Your task to perform on an android device: empty trash in the gmail app Image 0: 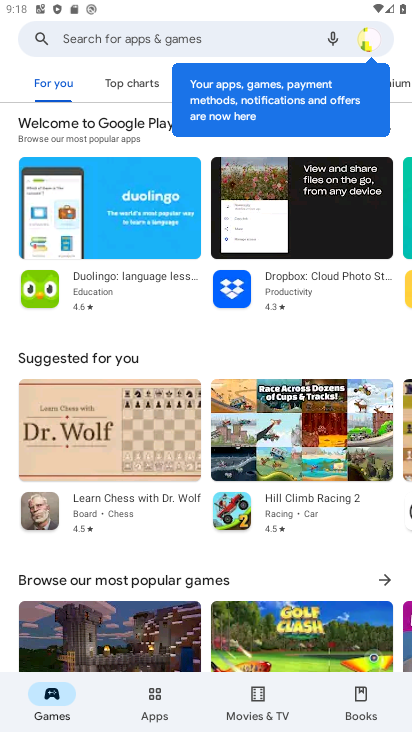
Step 0: press home button
Your task to perform on an android device: empty trash in the gmail app Image 1: 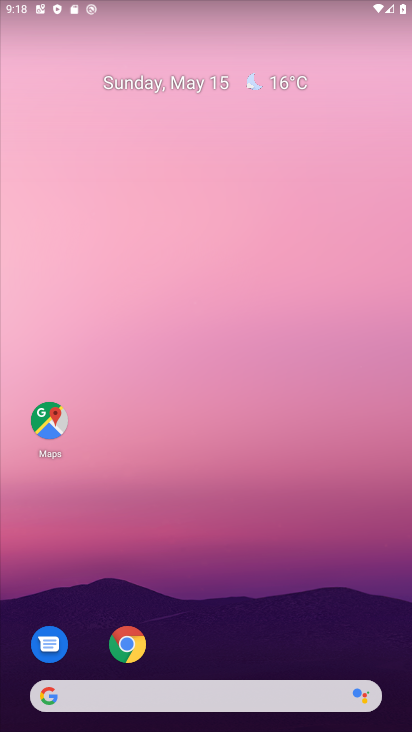
Step 1: drag from (151, 683) to (186, 358)
Your task to perform on an android device: empty trash in the gmail app Image 2: 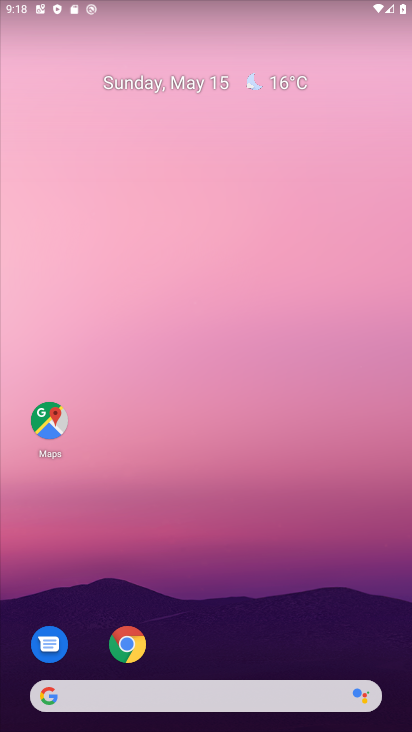
Step 2: drag from (238, 672) to (236, 382)
Your task to perform on an android device: empty trash in the gmail app Image 3: 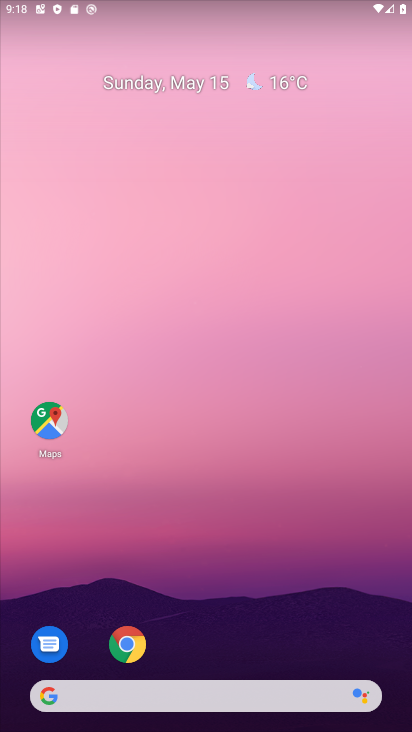
Step 3: drag from (163, 708) to (233, 243)
Your task to perform on an android device: empty trash in the gmail app Image 4: 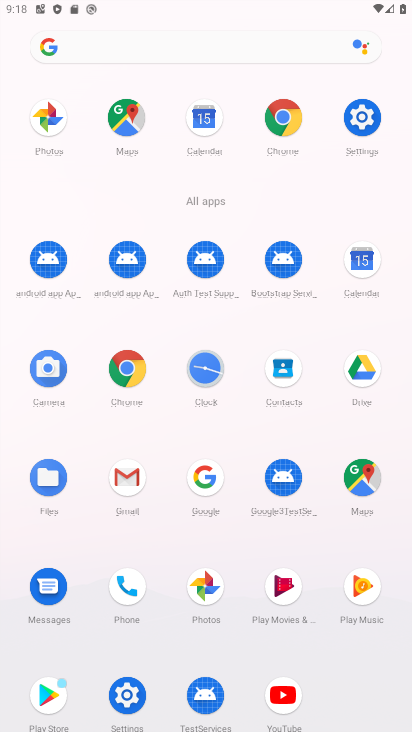
Step 4: click (118, 484)
Your task to perform on an android device: empty trash in the gmail app Image 5: 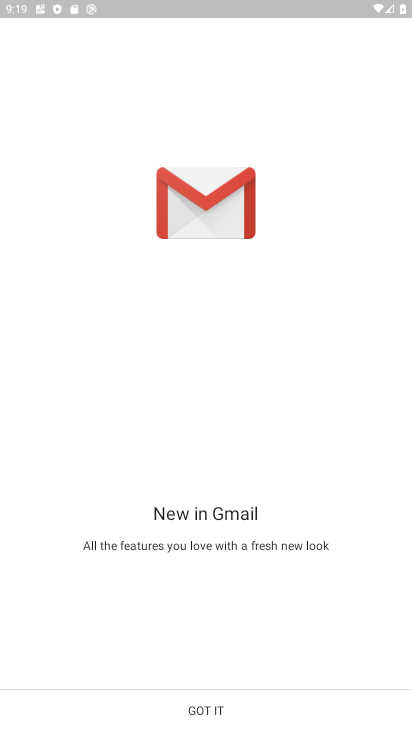
Step 5: click (192, 708)
Your task to perform on an android device: empty trash in the gmail app Image 6: 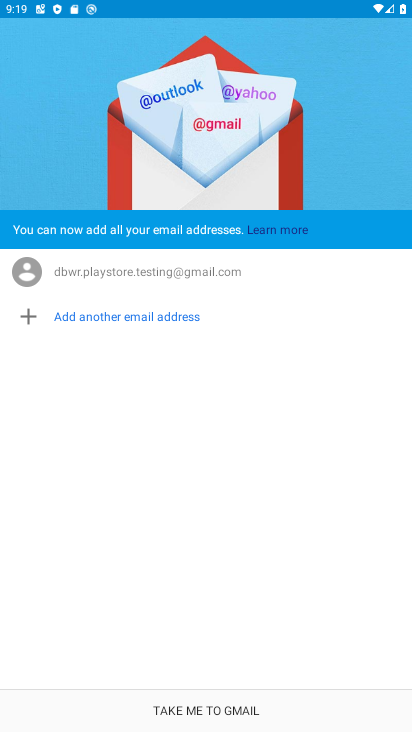
Step 6: click (192, 708)
Your task to perform on an android device: empty trash in the gmail app Image 7: 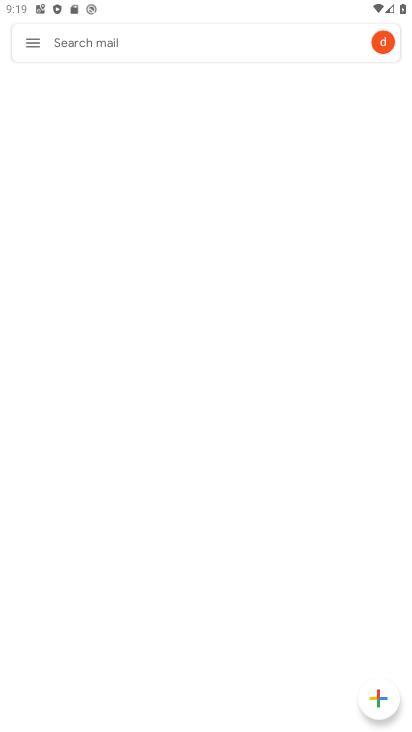
Step 7: click (30, 45)
Your task to perform on an android device: empty trash in the gmail app Image 8: 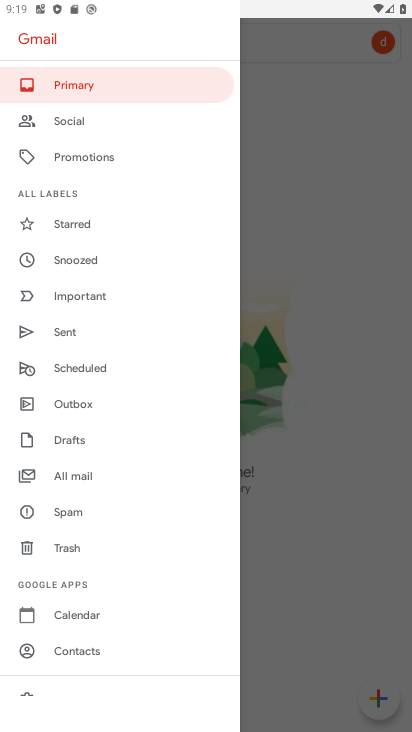
Step 8: click (52, 543)
Your task to perform on an android device: empty trash in the gmail app Image 9: 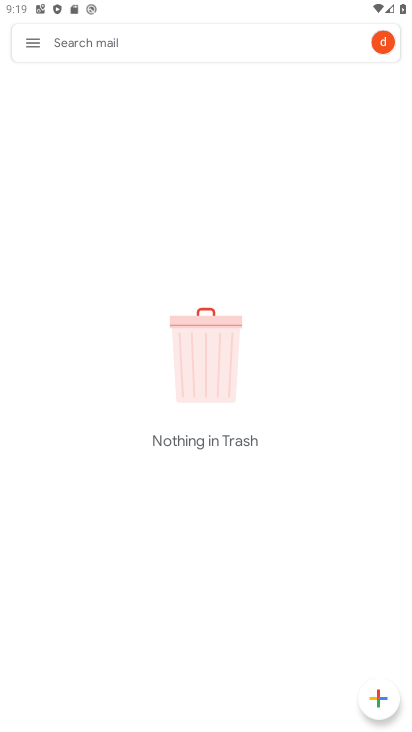
Step 9: task complete